Your task to perform on an android device: turn on bluetooth scan Image 0: 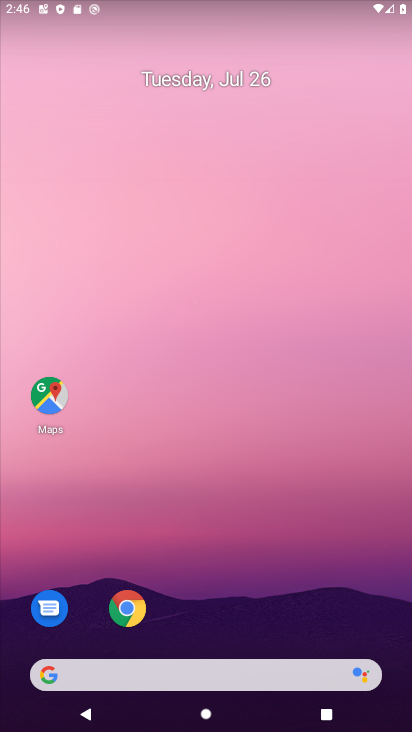
Step 0: drag from (245, 619) to (216, 107)
Your task to perform on an android device: turn on bluetooth scan Image 1: 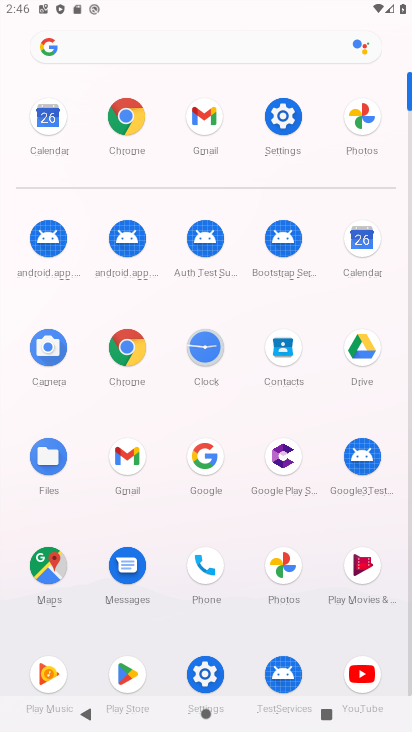
Step 1: click (209, 699)
Your task to perform on an android device: turn on bluetooth scan Image 2: 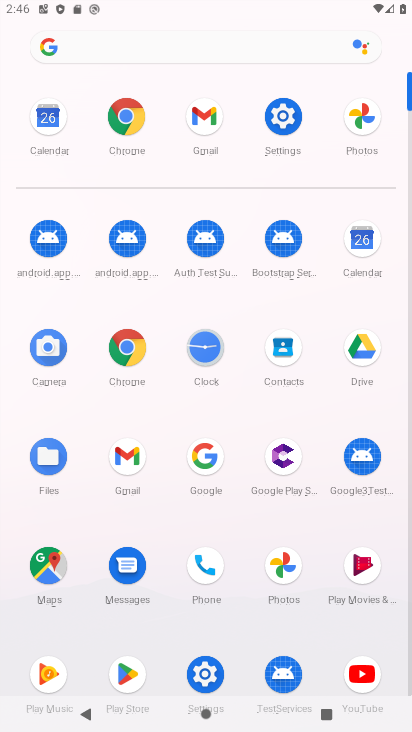
Step 2: click (273, 129)
Your task to perform on an android device: turn on bluetooth scan Image 3: 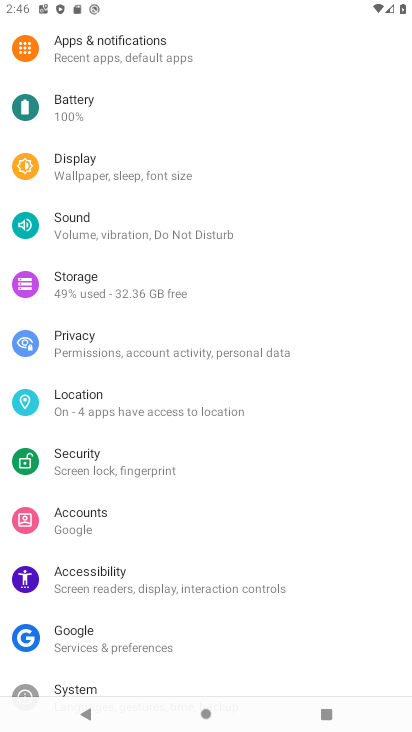
Step 3: task complete